Your task to perform on an android device: Go to internet settings Image 0: 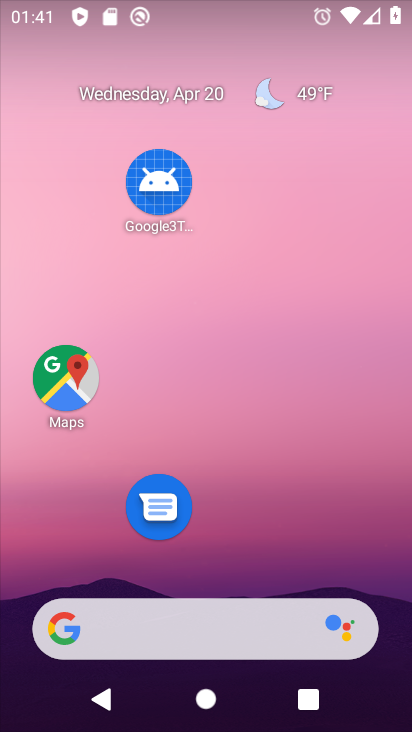
Step 0: drag from (215, 171) to (158, 10)
Your task to perform on an android device: Go to internet settings Image 1: 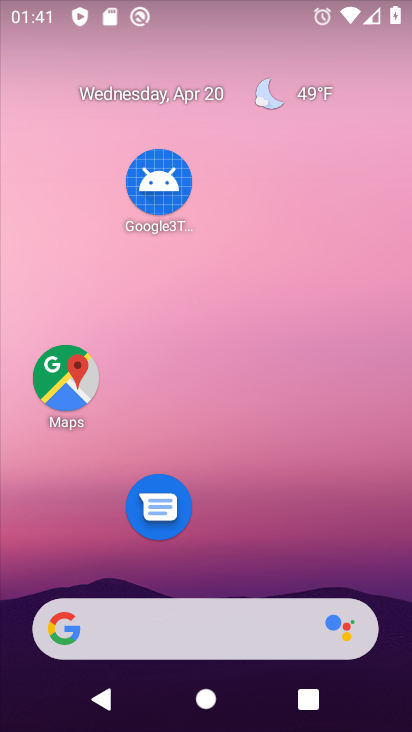
Step 1: drag from (191, 7) to (279, 0)
Your task to perform on an android device: Go to internet settings Image 2: 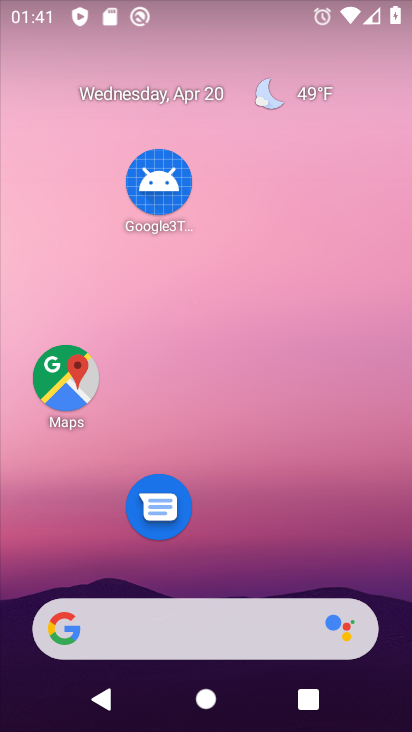
Step 2: drag from (248, 548) to (86, 5)
Your task to perform on an android device: Go to internet settings Image 3: 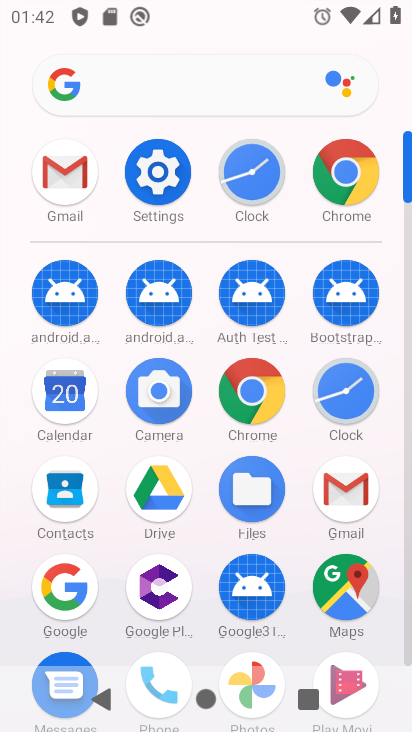
Step 3: click (160, 180)
Your task to perform on an android device: Go to internet settings Image 4: 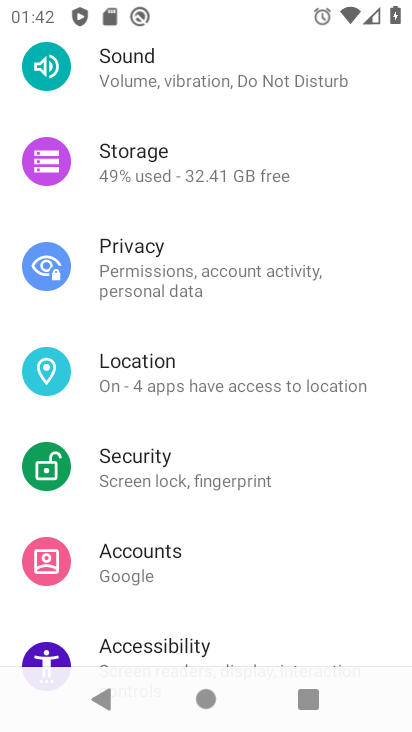
Step 4: drag from (194, 133) to (170, 593)
Your task to perform on an android device: Go to internet settings Image 5: 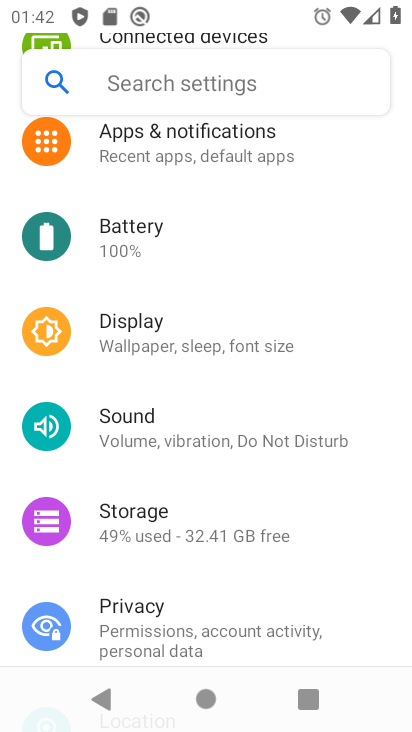
Step 5: drag from (195, 175) to (240, 589)
Your task to perform on an android device: Go to internet settings Image 6: 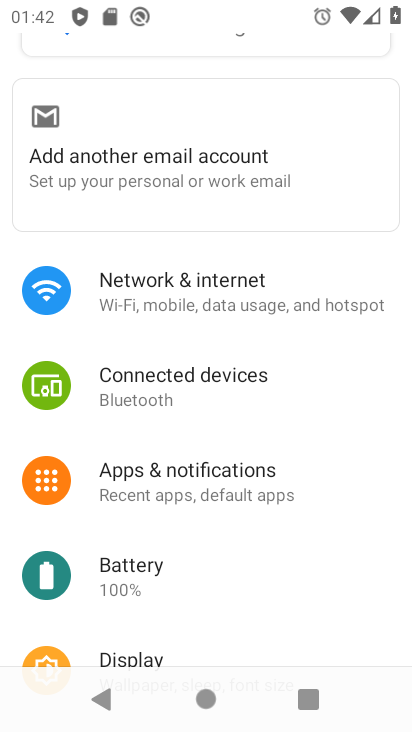
Step 6: click (187, 285)
Your task to perform on an android device: Go to internet settings Image 7: 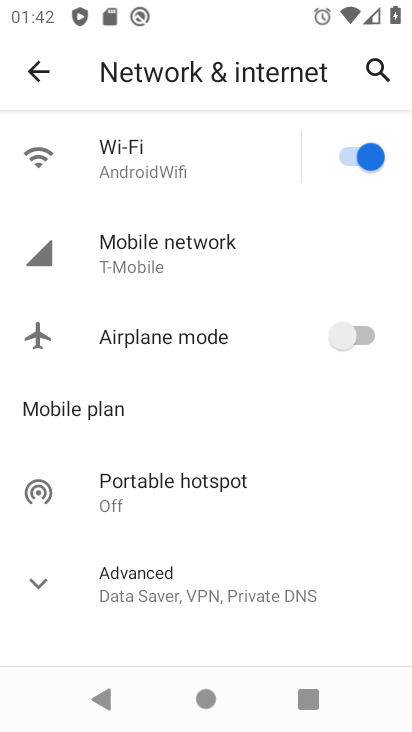
Step 7: click (160, 243)
Your task to perform on an android device: Go to internet settings Image 8: 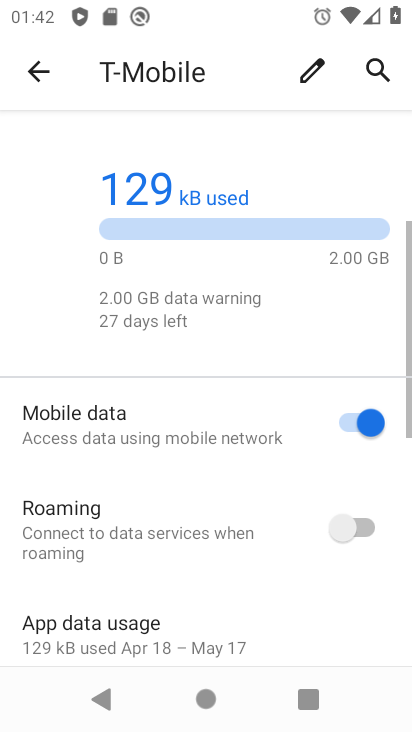
Step 8: task complete